Your task to perform on an android device: allow notifications from all sites in the chrome app Image 0: 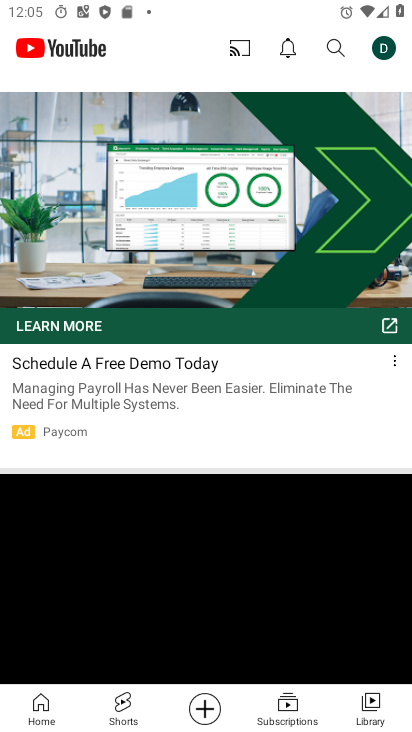
Step 0: press home button
Your task to perform on an android device: allow notifications from all sites in the chrome app Image 1: 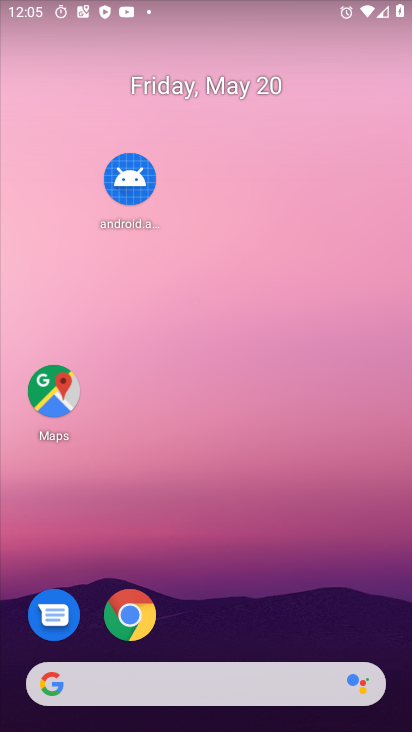
Step 1: click (141, 603)
Your task to perform on an android device: allow notifications from all sites in the chrome app Image 2: 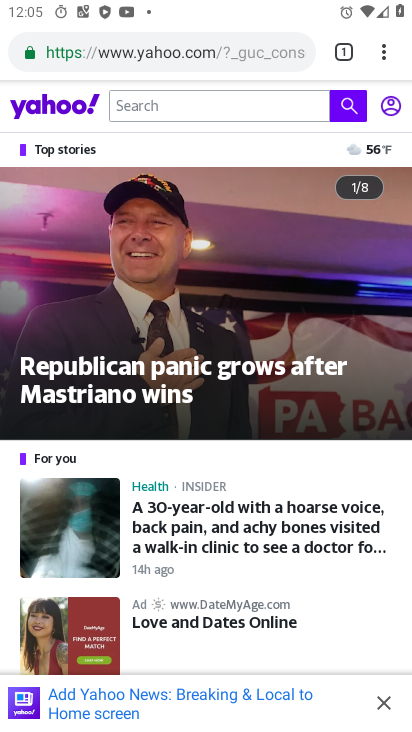
Step 2: click (381, 47)
Your task to perform on an android device: allow notifications from all sites in the chrome app Image 3: 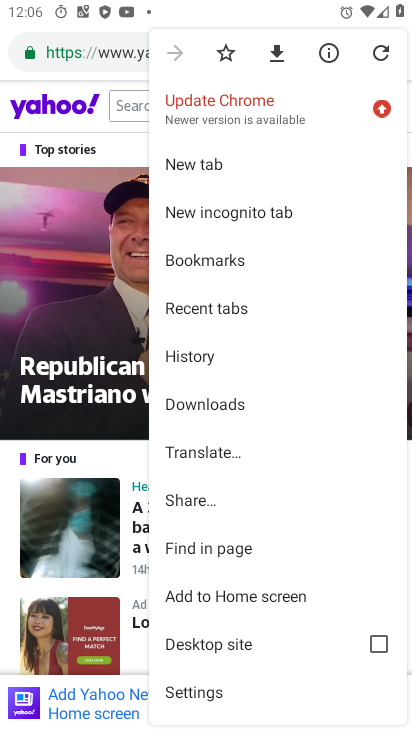
Step 3: click (222, 687)
Your task to perform on an android device: allow notifications from all sites in the chrome app Image 4: 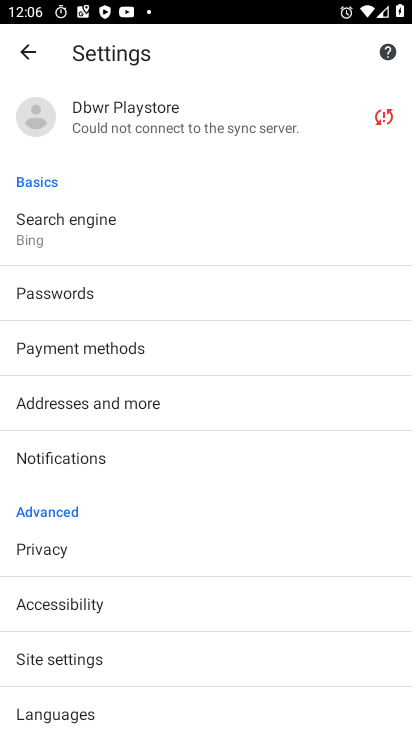
Step 4: click (59, 450)
Your task to perform on an android device: allow notifications from all sites in the chrome app Image 5: 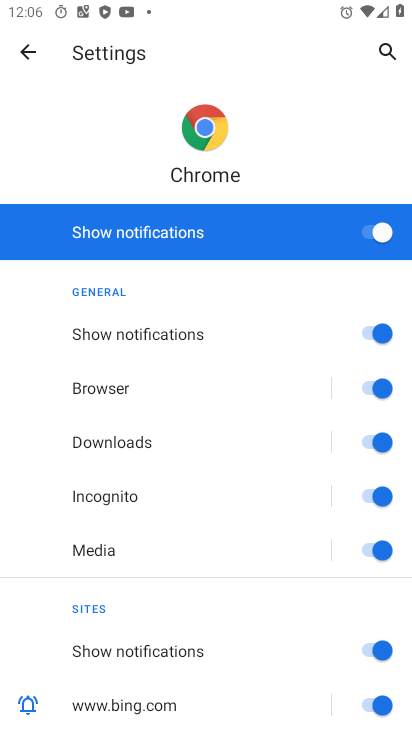
Step 5: task complete